Your task to perform on an android device: turn off location Image 0: 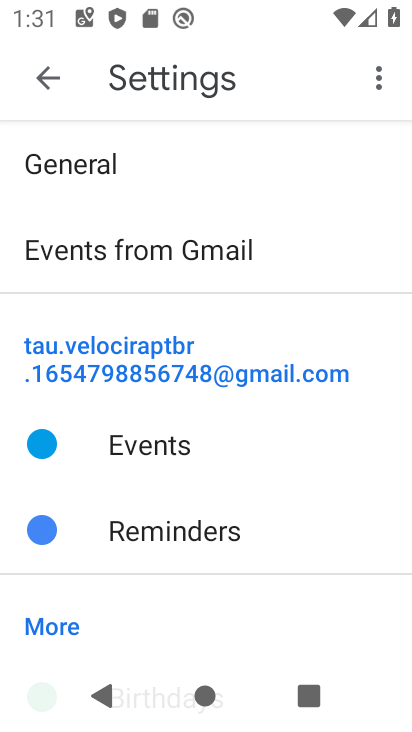
Step 0: press back button
Your task to perform on an android device: turn off location Image 1: 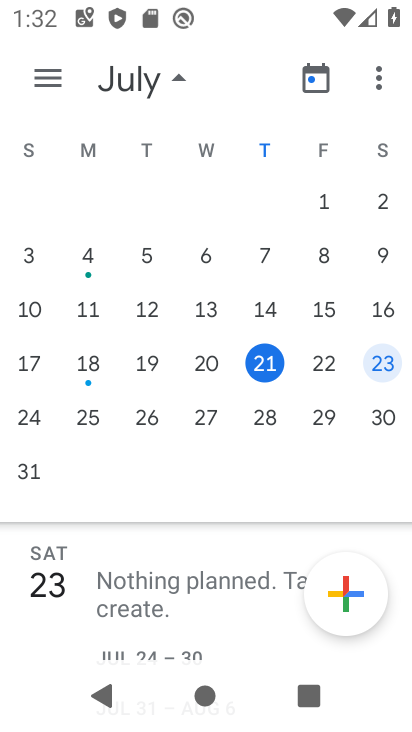
Step 1: press back button
Your task to perform on an android device: turn off location Image 2: 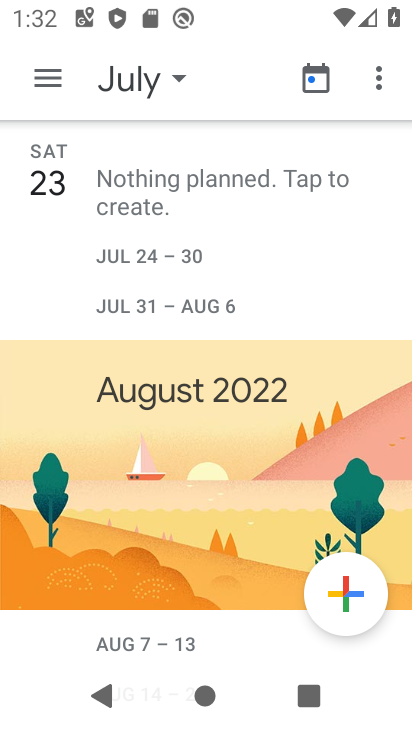
Step 2: press back button
Your task to perform on an android device: turn off location Image 3: 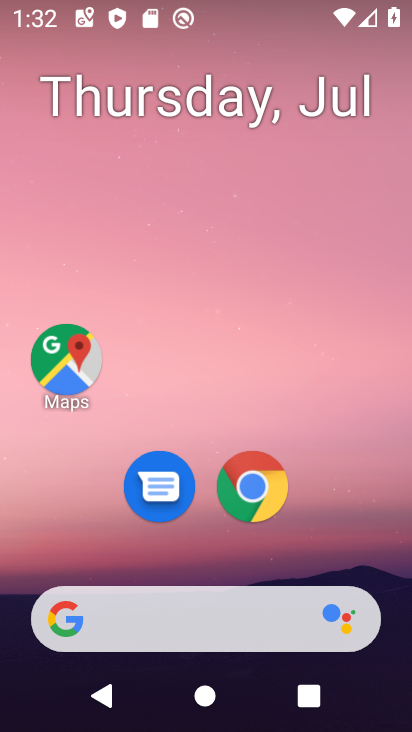
Step 3: drag from (193, 575) to (213, 2)
Your task to perform on an android device: turn off location Image 4: 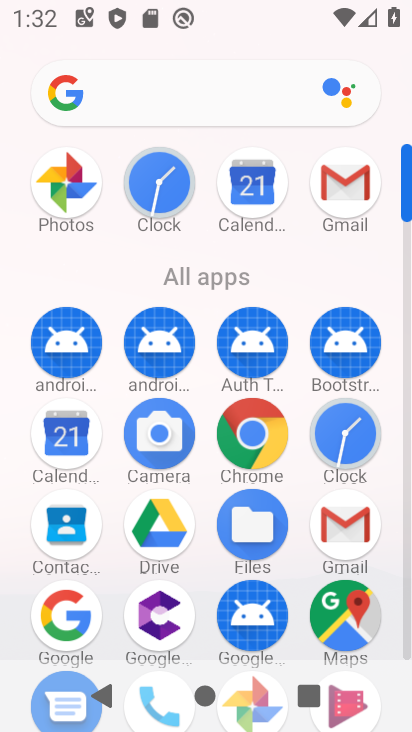
Step 4: drag from (193, 630) to (266, 70)
Your task to perform on an android device: turn off location Image 5: 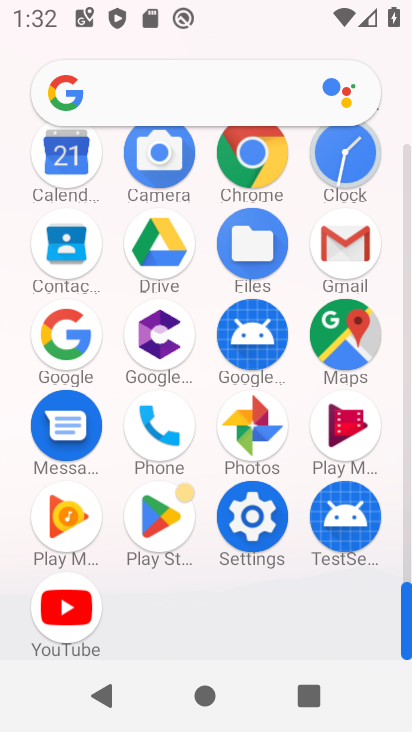
Step 5: click (250, 525)
Your task to perform on an android device: turn off location Image 6: 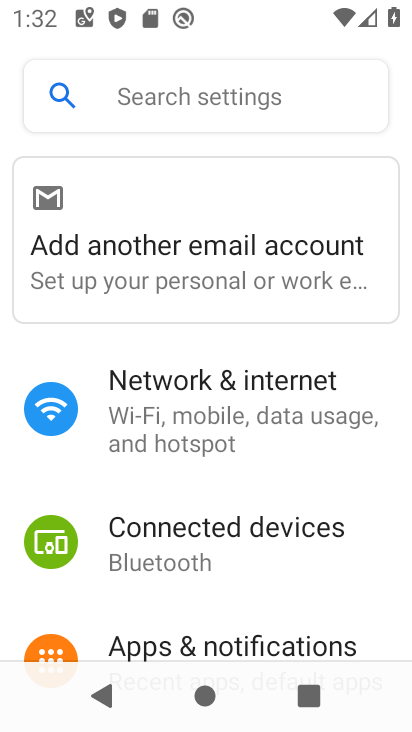
Step 6: drag from (192, 634) to (278, 36)
Your task to perform on an android device: turn off location Image 7: 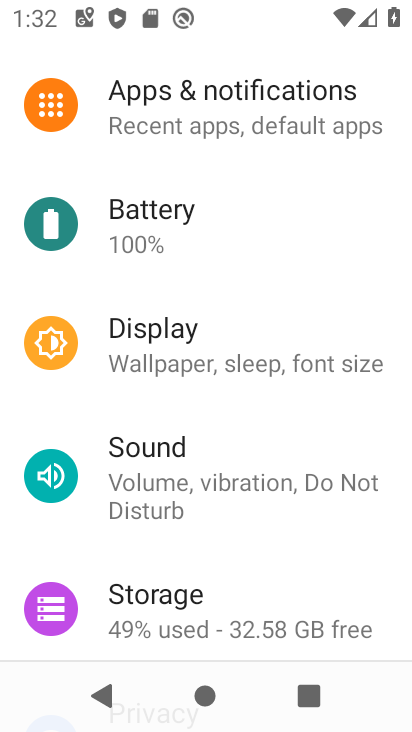
Step 7: drag from (193, 553) to (268, 83)
Your task to perform on an android device: turn off location Image 8: 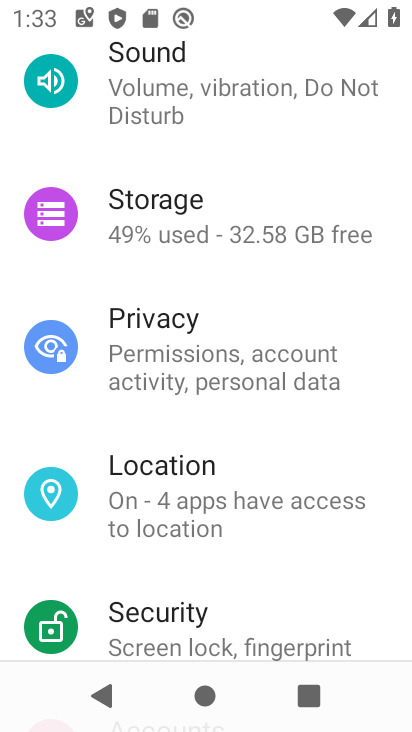
Step 8: click (204, 492)
Your task to perform on an android device: turn off location Image 9: 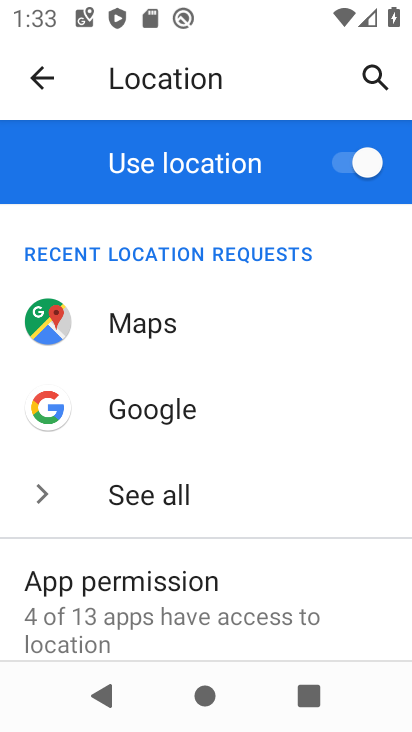
Step 9: click (358, 162)
Your task to perform on an android device: turn off location Image 10: 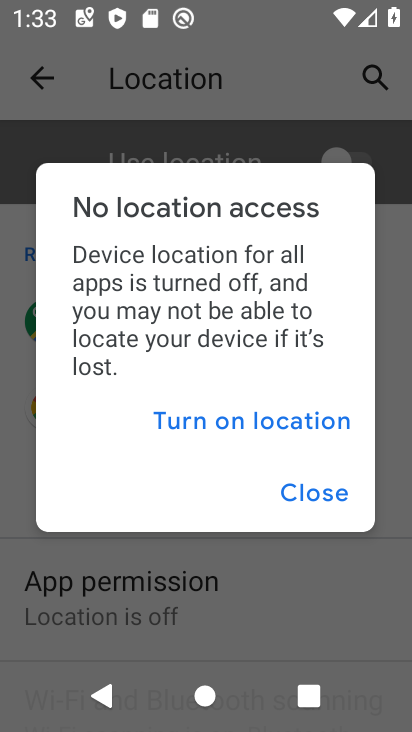
Step 10: task complete